Your task to perform on an android device: empty trash in the gmail app Image 0: 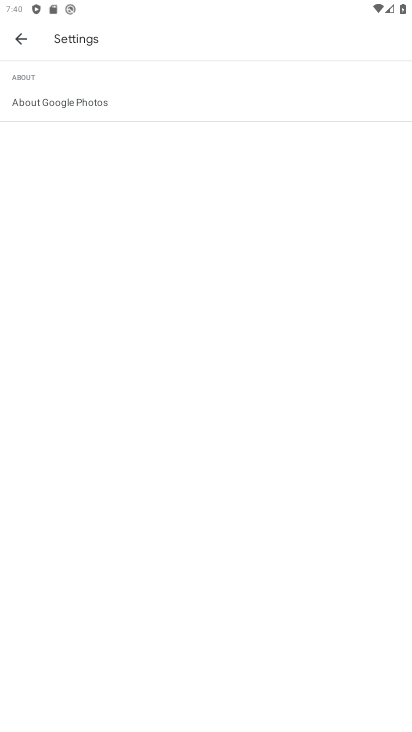
Step 0: click (18, 42)
Your task to perform on an android device: empty trash in the gmail app Image 1: 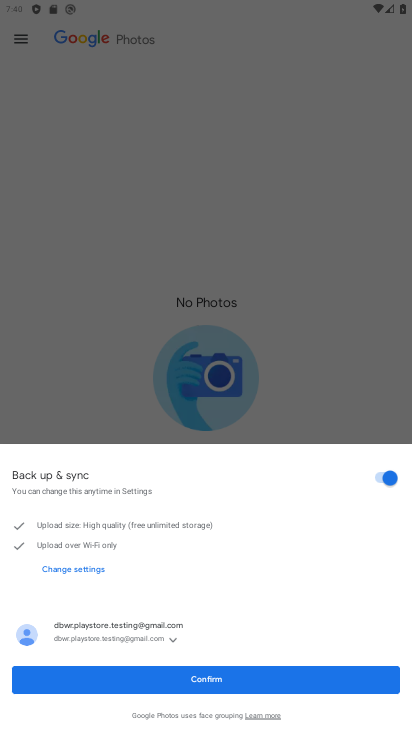
Step 1: click (273, 685)
Your task to perform on an android device: empty trash in the gmail app Image 2: 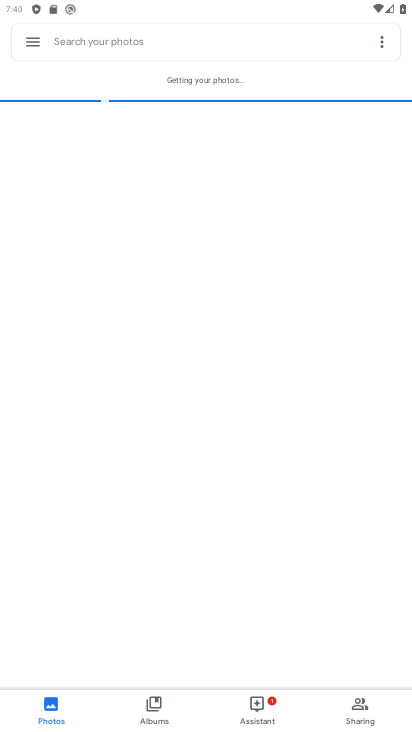
Step 2: press home button
Your task to perform on an android device: empty trash in the gmail app Image 3: 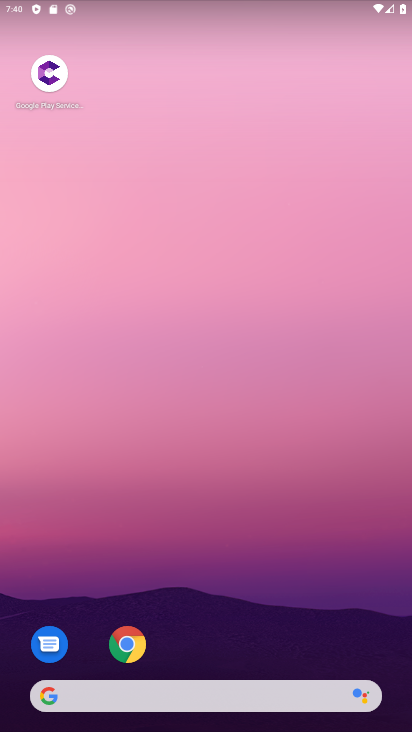
Step 3: drag from (242, 681) to (154, 49)
Your task to perform on an android device: empty trash in the gmail app Image 4: 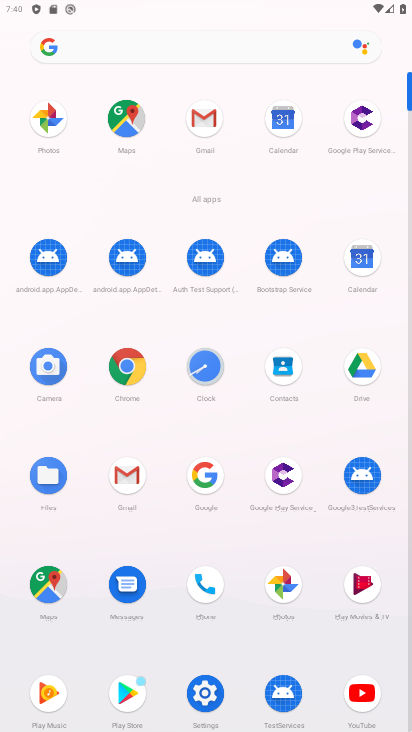
Step 4: click (213, 114)
Your task to perform on an android device: empty trash in the gmail app Image 5: 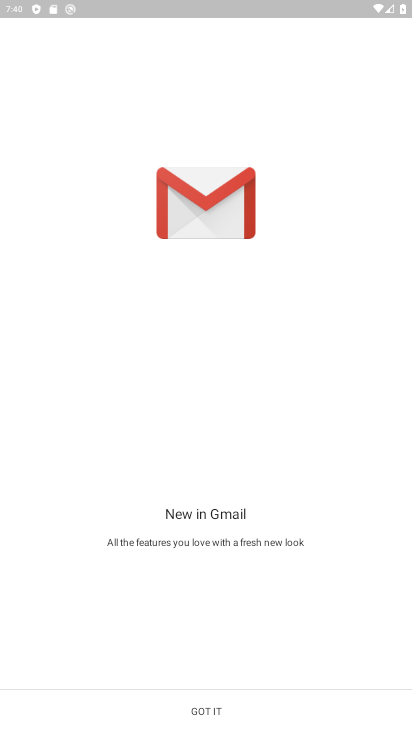
Step 5: click (210, 704)
Your task to perform on an android device: empty trash in the gmail app Image 6: 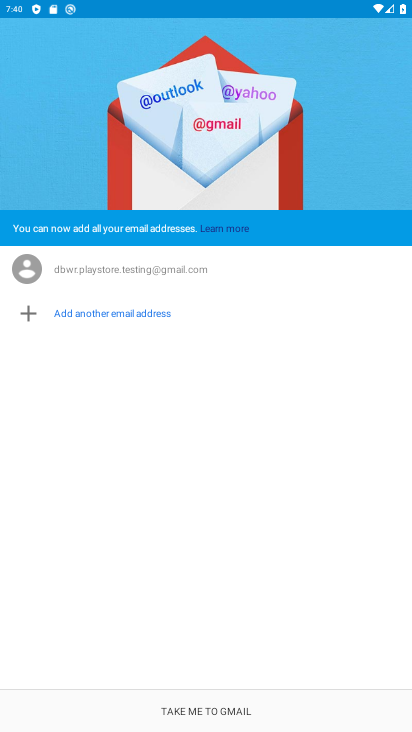
Step 6: click (210, 704)
Your task to perform on an android device: empty trash in the gmail app Image 7: 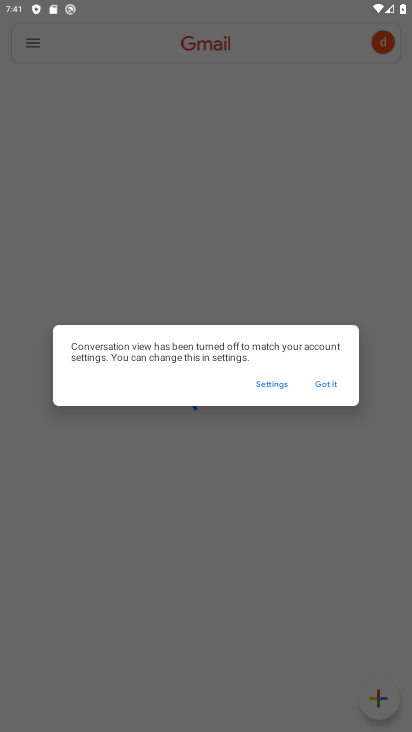
Step 7: click (333, 385)
Your task to perform on an android device: empty trash in the gmail app Image 8: 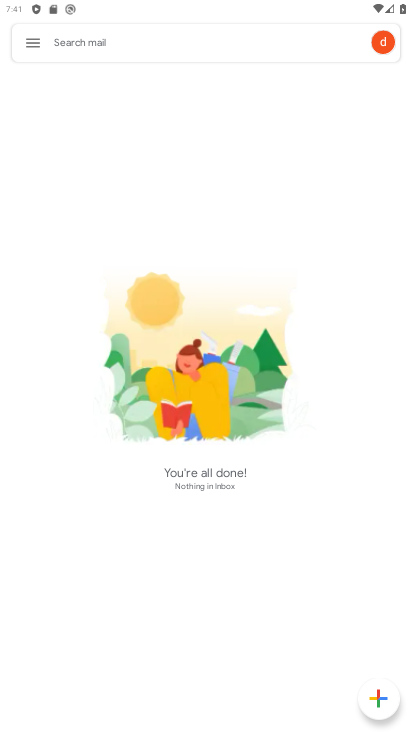
Step 8: click (36, 42)
Your task to perform on an android device: empty trash in the gmail app Image 9: 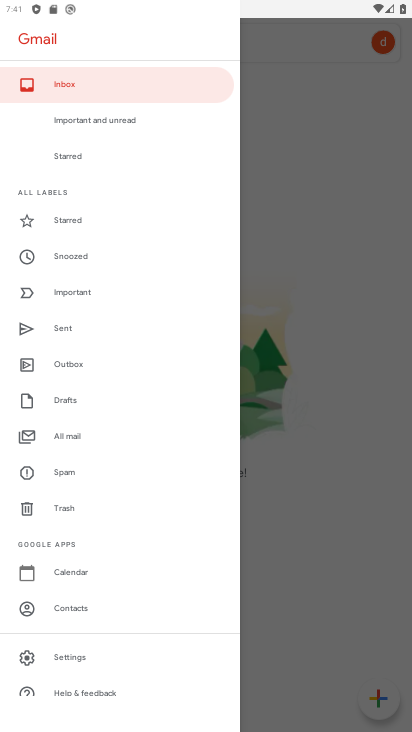
Step 9: click (84, 512)
Your task to perform on an android device: empty trash in the gmail app Image 10: 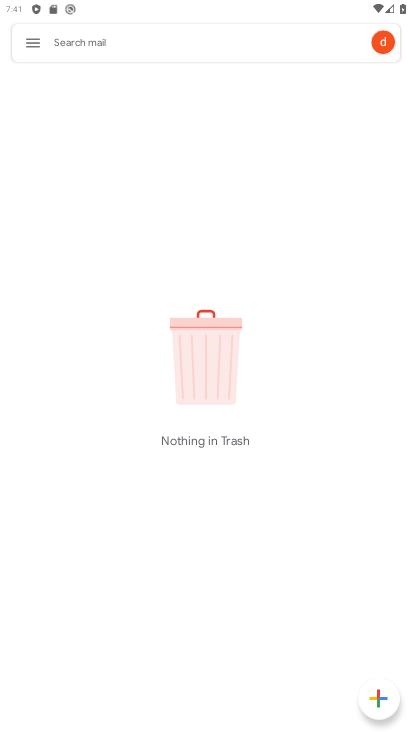
Step 10: task complete